Your task to perform on an android device: find snoozed emails in the gmail app Image 0: 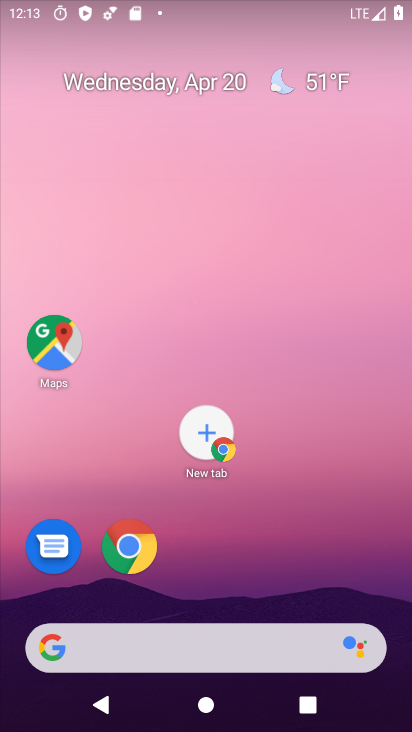
Step 0: drag from (190, 587) to (131, 7)
Your task to perform on an android device: find snoozed emails in the gmail app Image 1: 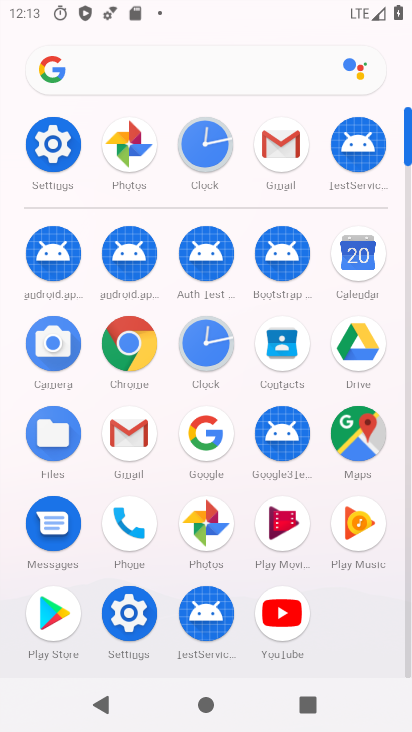
Step 1: click (260, 149)
Your task to perform on an android device: find snoozed emails in the gmail app Image 2: 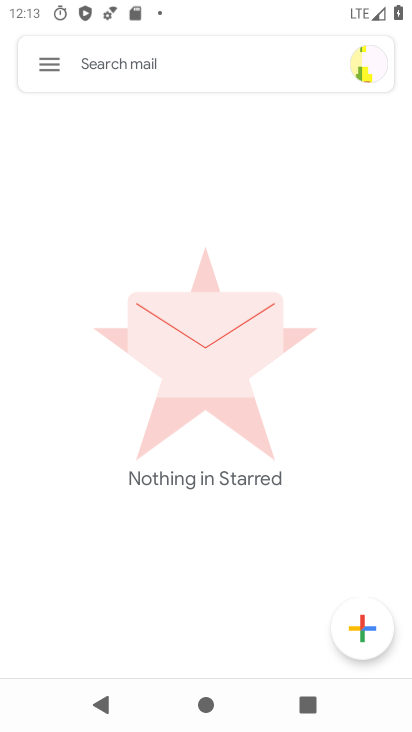
Step 2: click (45, 64)
Your task to perform on an android device: find snoozed emails in the gmail app Image 3: 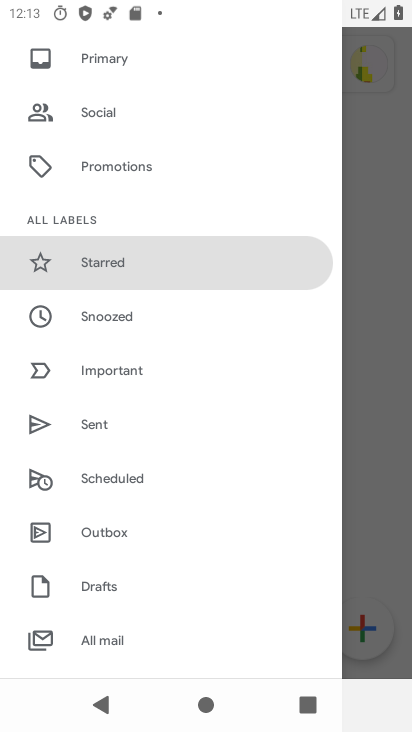
Step 3: click (171, 312)
Your task to perform on an android device: find snoozed emails in the gmail app Image 4: 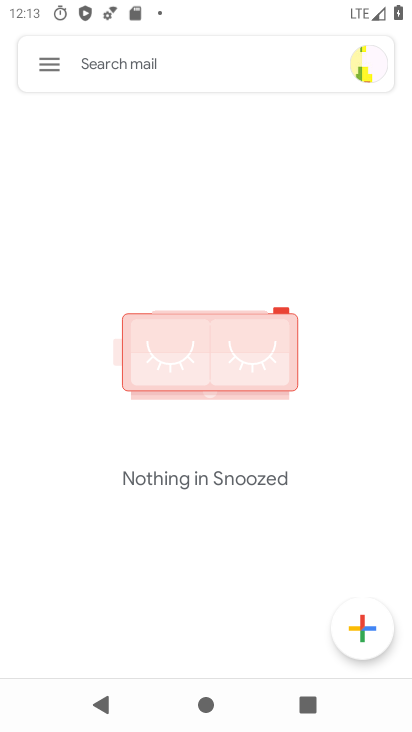
Step 4: task complete